Your task to perform on an android device: Add "lenovo thinkpad" to the cart on newegg.com, then select checkout. Image 0: 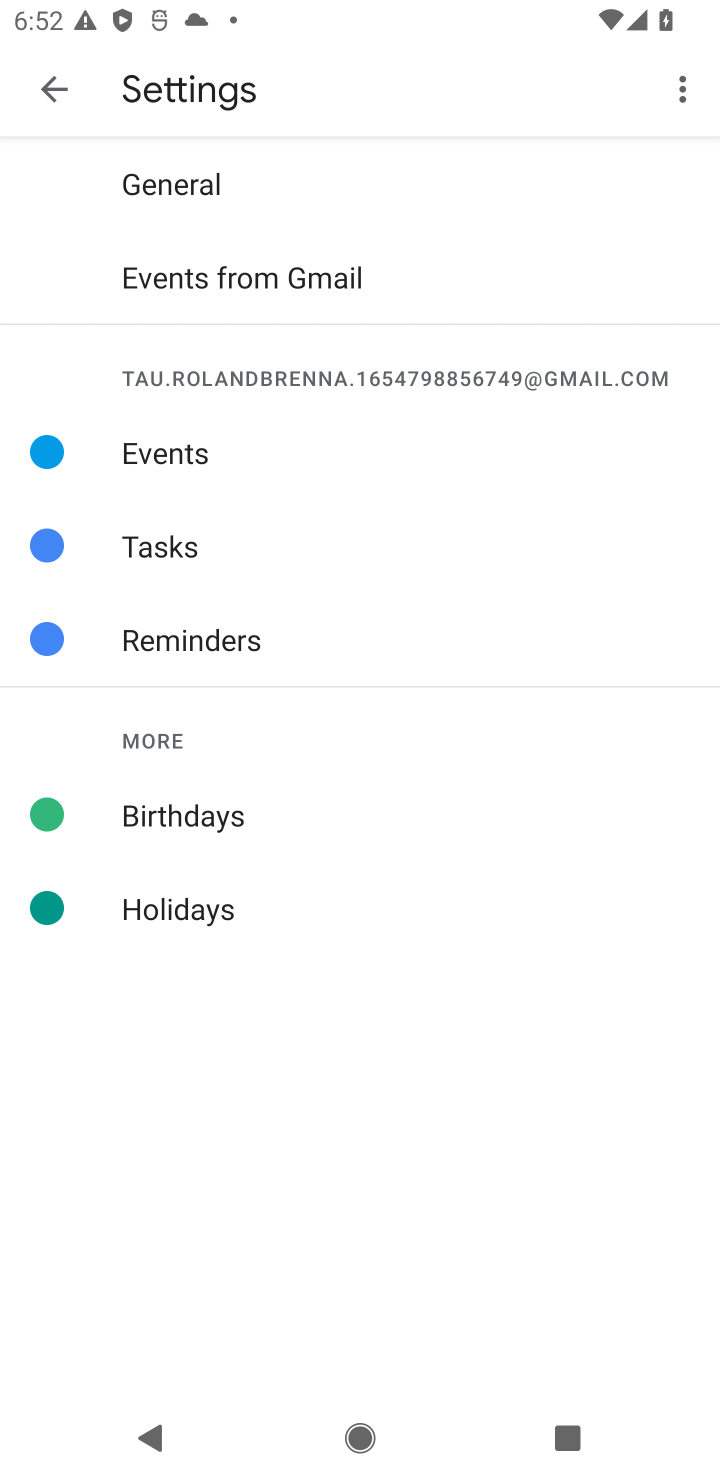
Step 0: press home button
Your task to perform on an android device: Add "lenovo thinkpad" to the cart on newegg.com, then select checkout. Image 1: 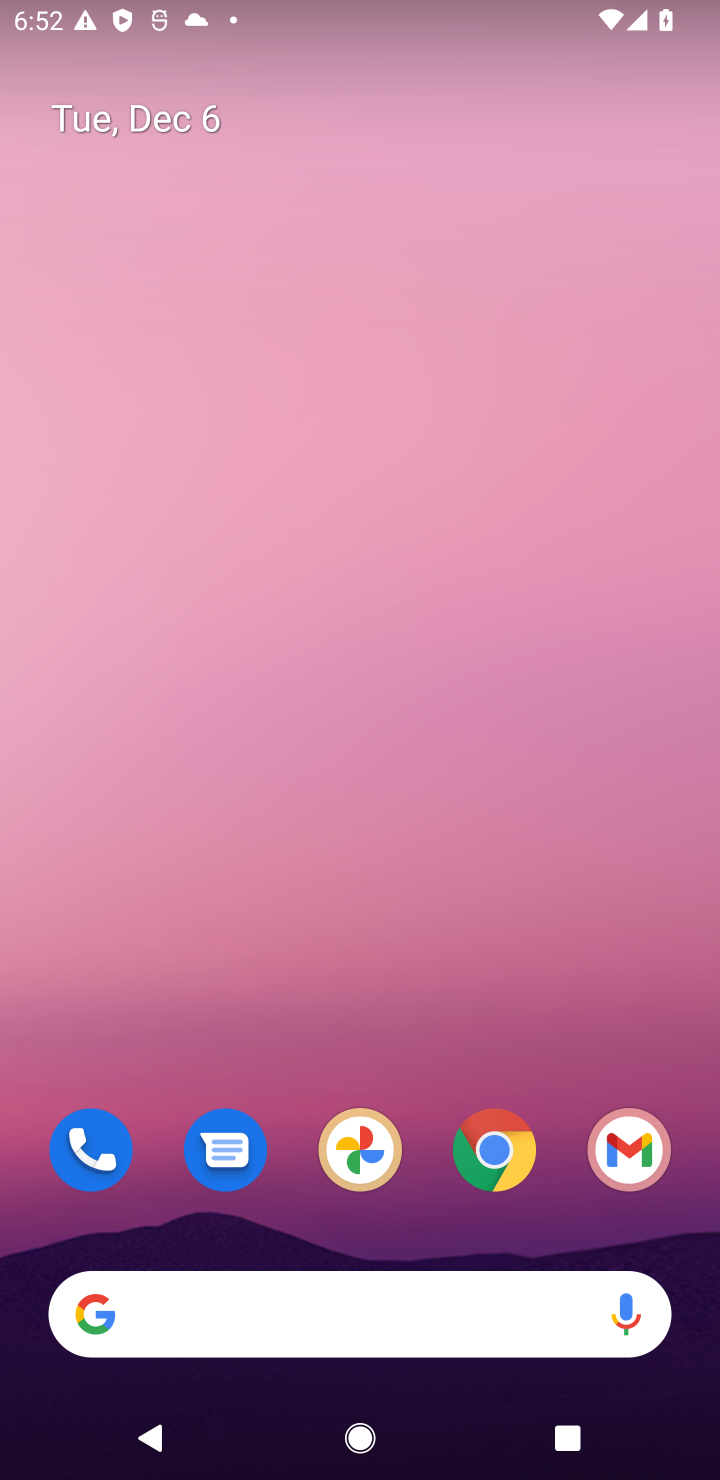
Step 1: click (487, 1163)
Your task to perform on an android device: Add "lenovo thinkpad" to the cart on newegg.com, then select checkout. Image 2: 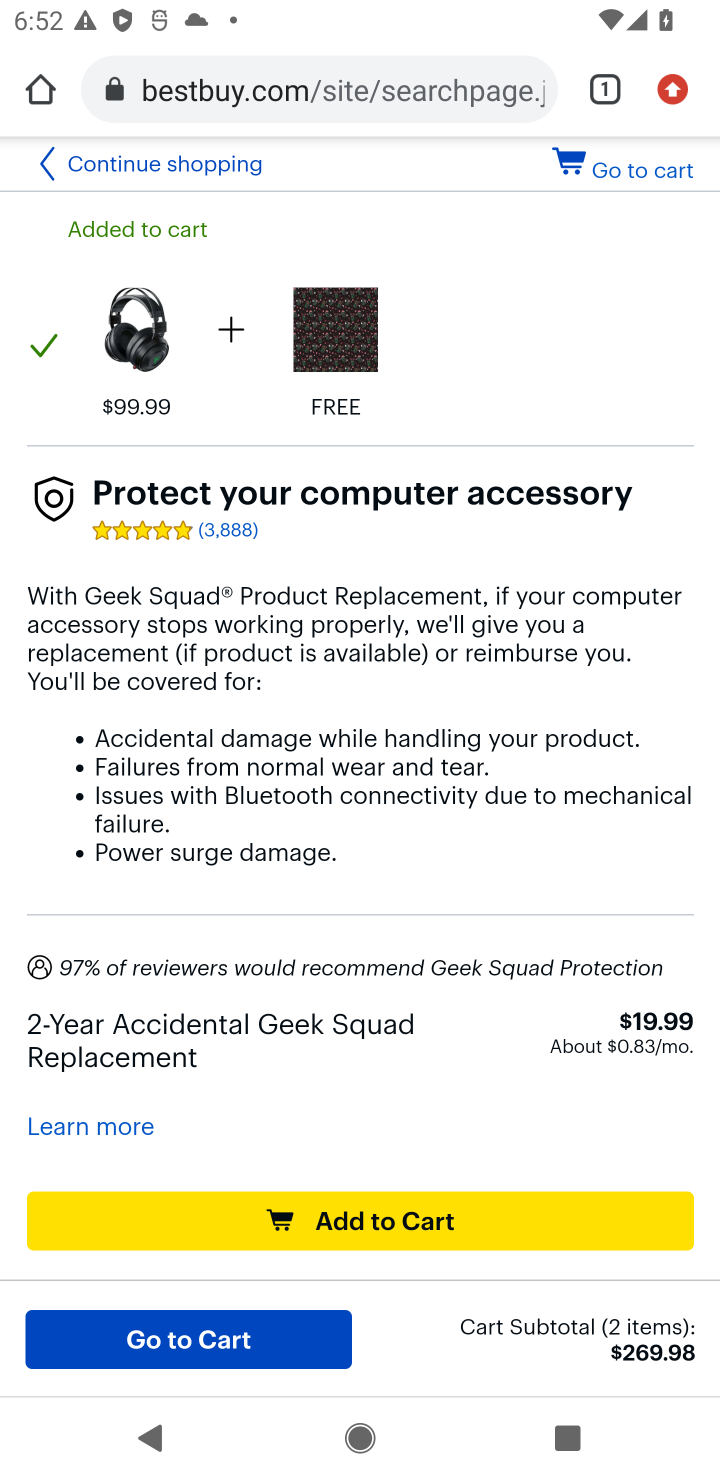
Step 2: click (304, 95)
Your task to perform on an android device: Add "lenovo thinkpad" to the cart on newegg.com, then select checkout. Image 3: 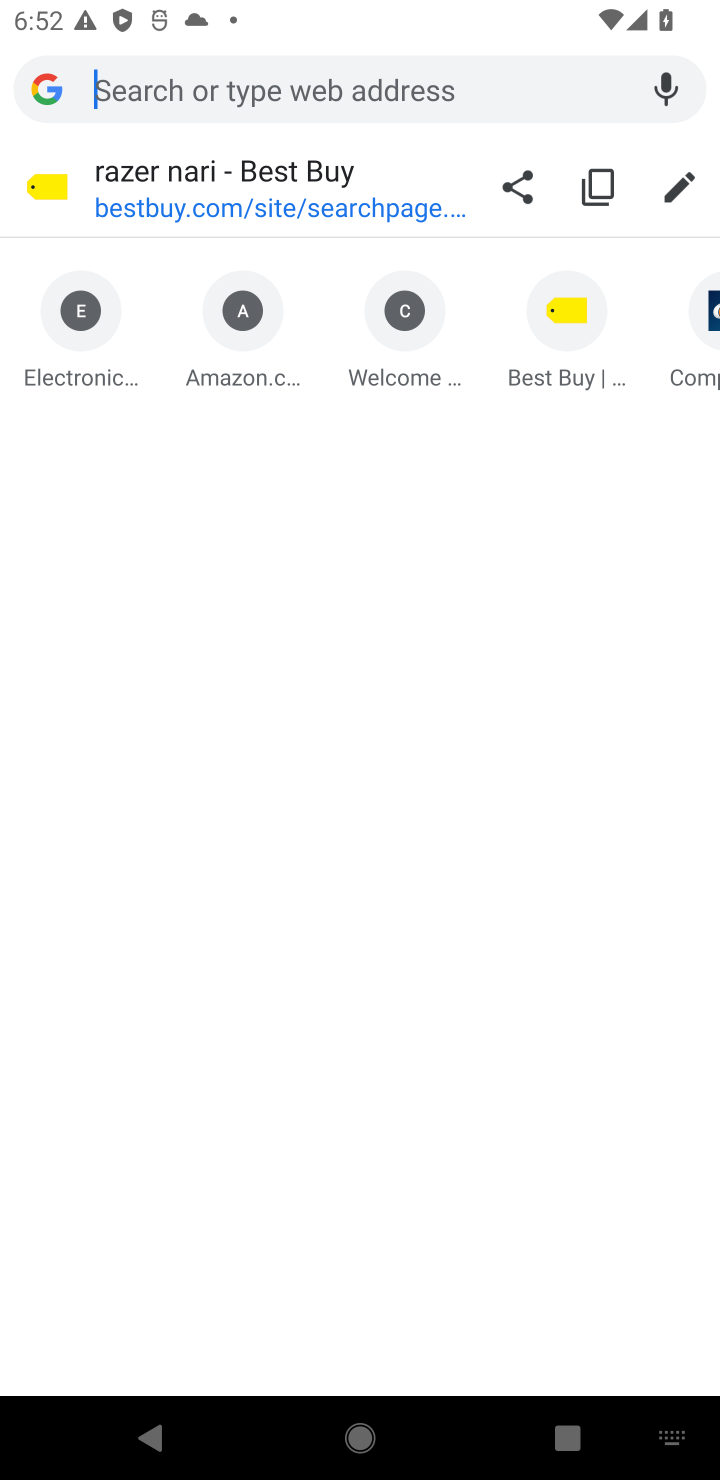
Step 3: type "newegg.com"
Your task to perform on an android device: Add "lenovo thinkpad" to the cart on newegg.com, then select checkout. Image 4: 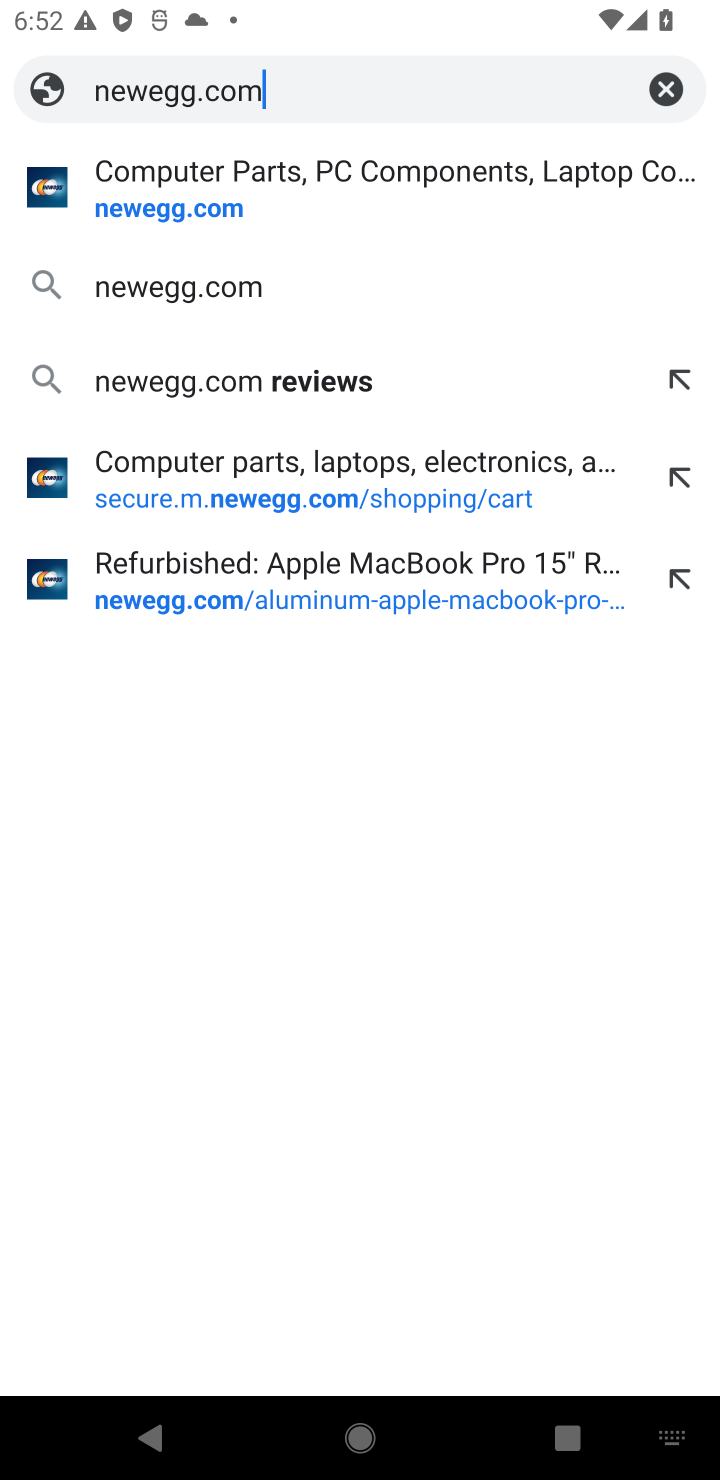
Step 4: click (136, 224)
Your task to perform on an android device: Add "lenovo thinkpad" to the cart on newegg.com, then select checkout. Image 5: 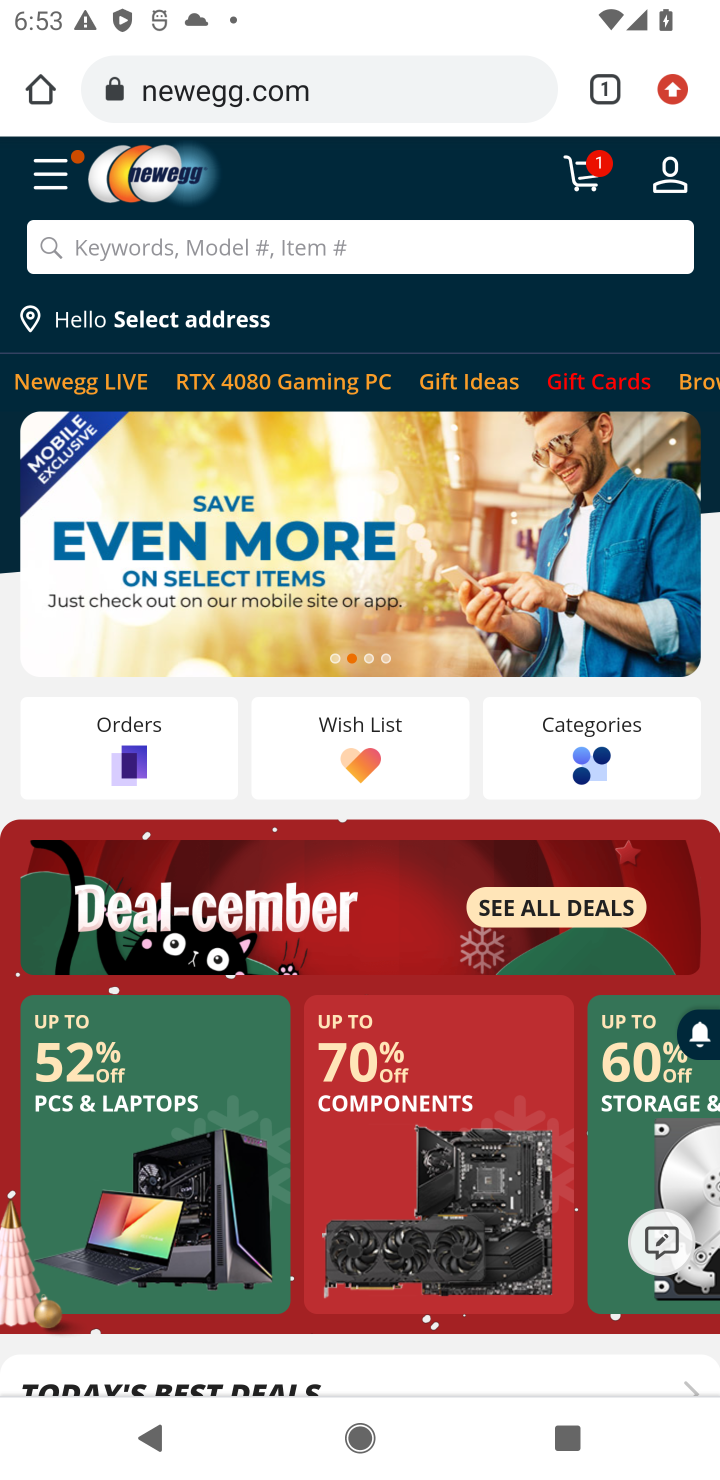
Step 5: click (243, 253)
Your task to perform on an android device: Add "lenovo thinkpad" to the cart on newegg.com, then select checkout. Image 6: 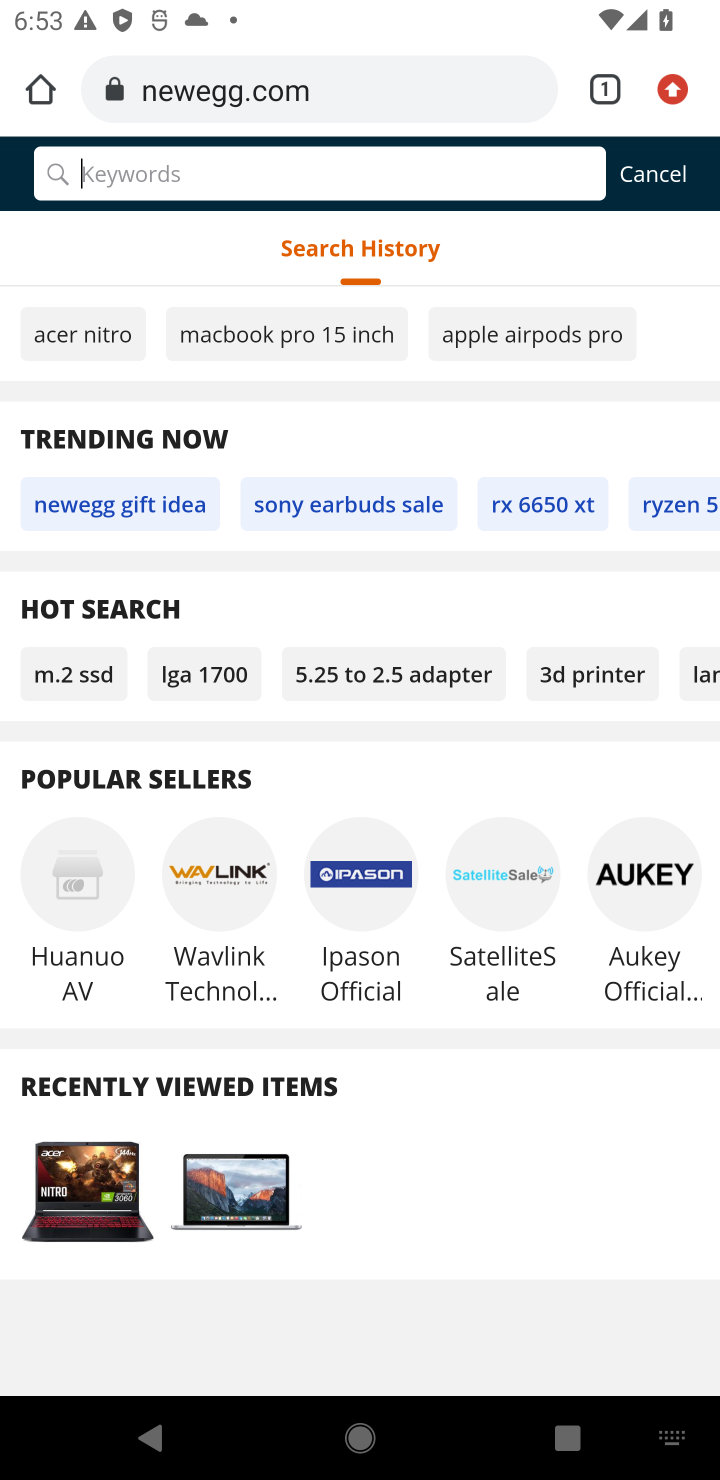
Step 6: type "lenovo thinkpad"
Your task to perform on an android device: Add "lenovo thinkpad" to the cart on newegg.com, then select checkout. Image 7: 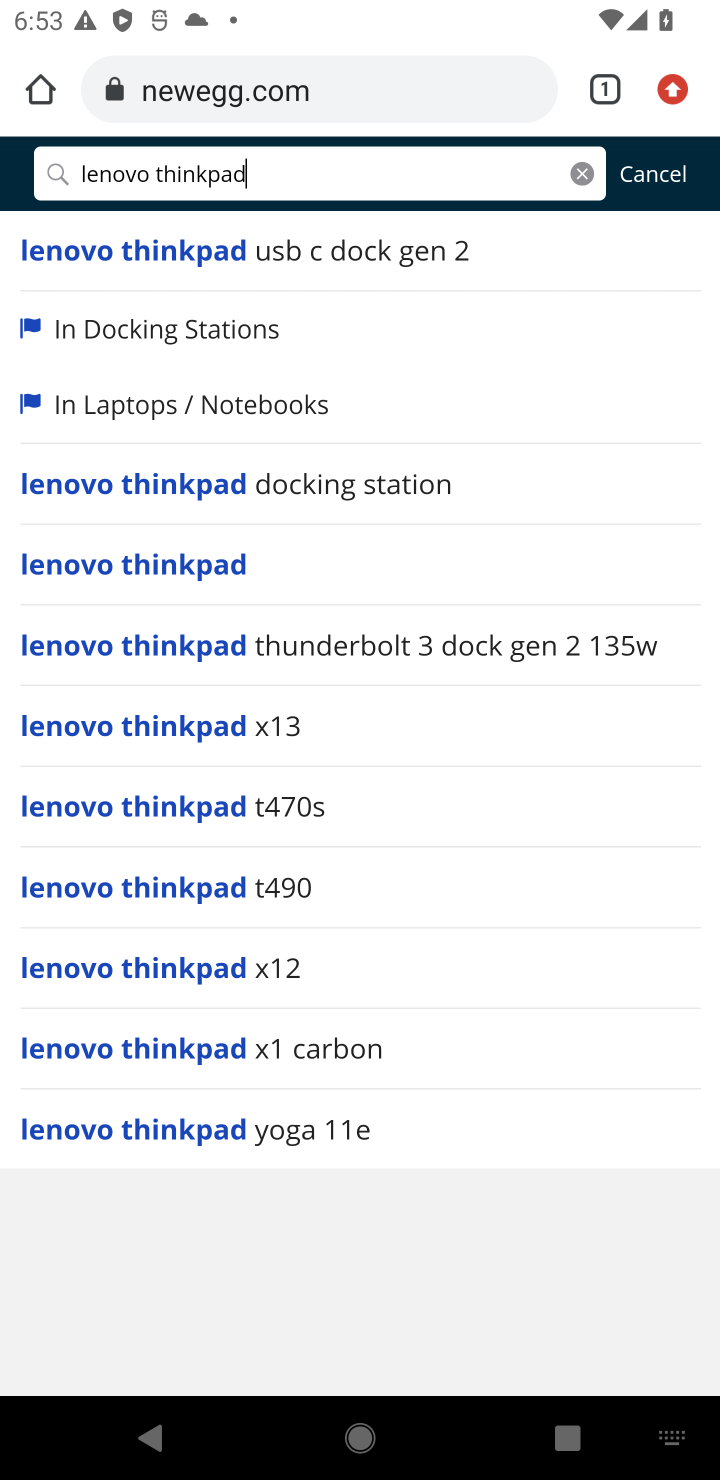
Step 7: click (231, 568)
Your task to perform on an android device: Add "lenovo thinkpad" to the cart on newegg.com, then select checkout. Image 8: 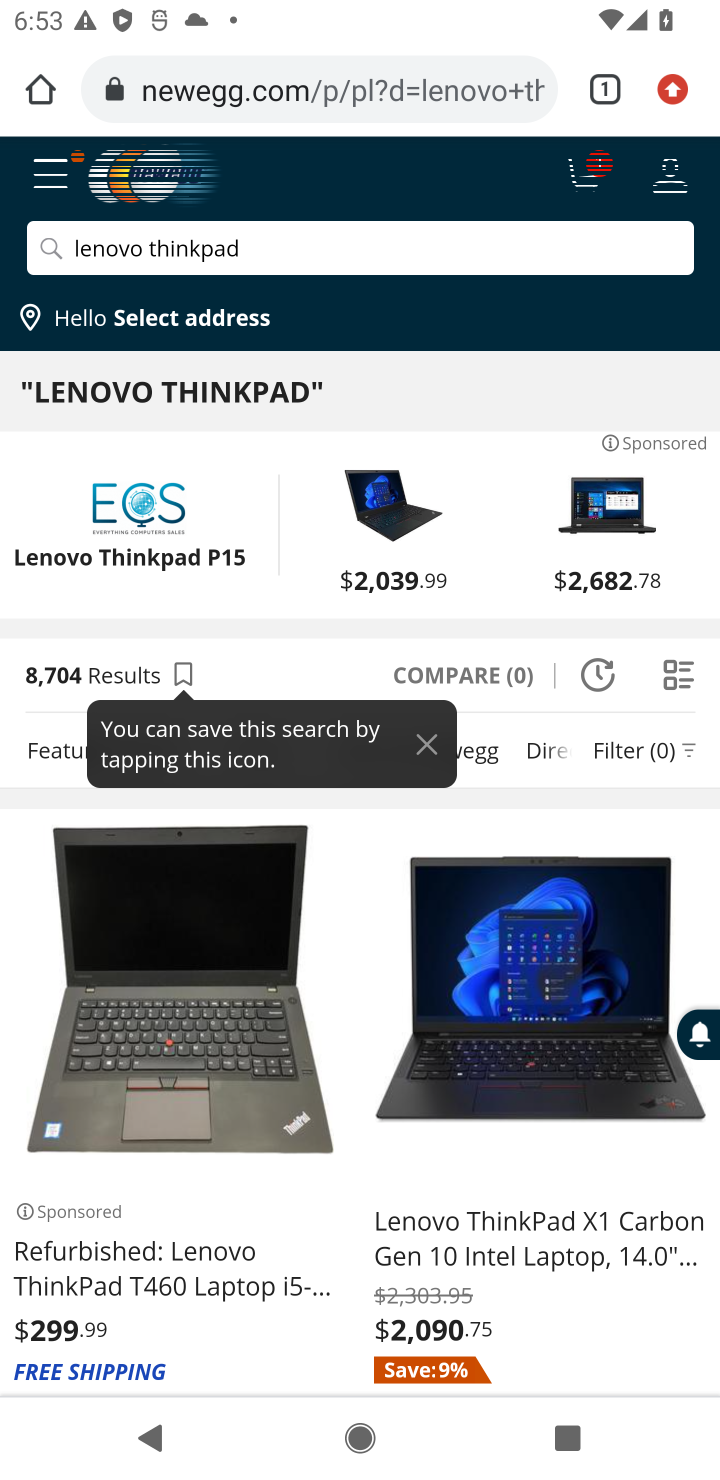
Step 8: click (149, 1268)
Your task to perform on an android device: Add "lenovo thinkpad" to the cart on newegg.com, then select checkout. Image 9: 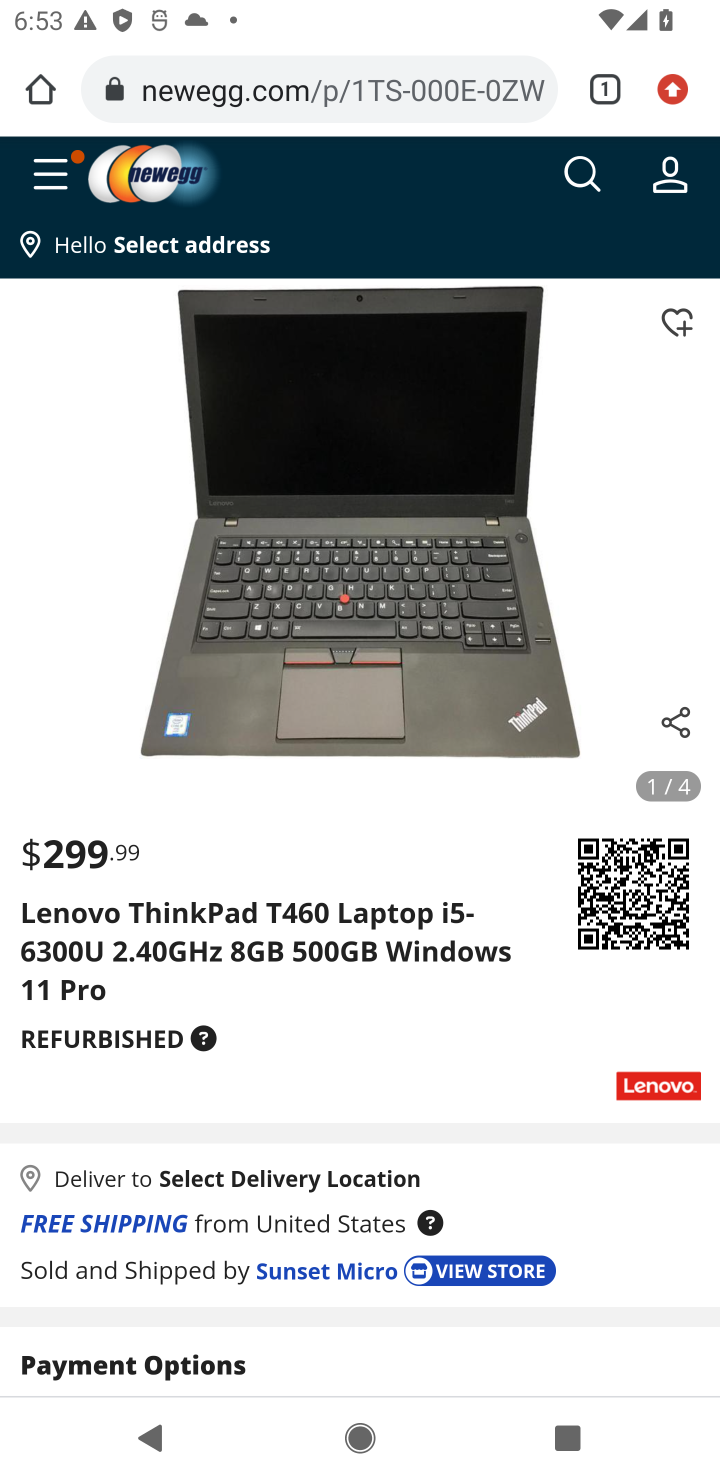
Step 9: click (301, 1356)
Your task to perform on an android device: Add "lenovo thinkpad" to the cart on newegg.com, then select checkout. Image 10: 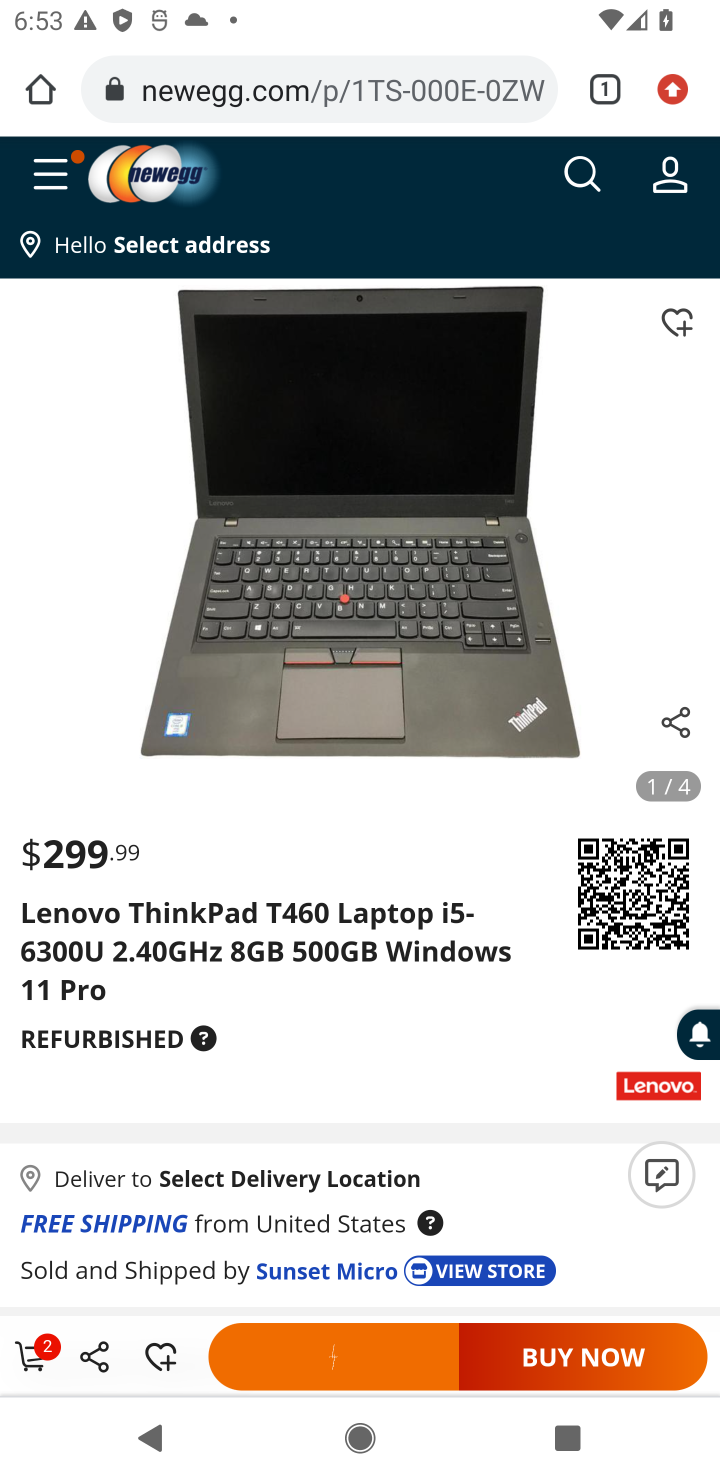
Step 10: click (303, 1359)
Your task to perform on an android device: Add "lenovo thinkpad" to the cart on newegg.com, then select checkout. Image 11: 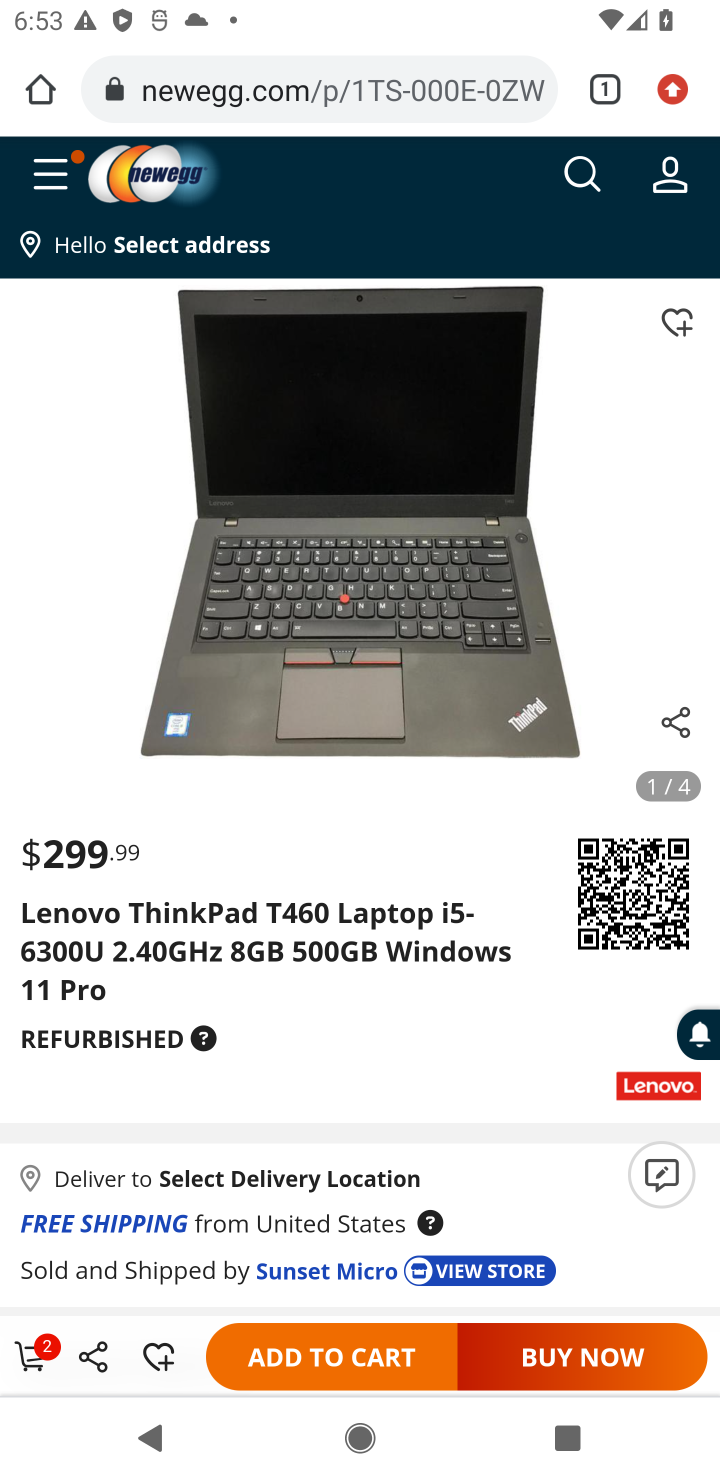
Step 11: click (30, 1371)
Your task to perform on an android device: Add "lenovo thinkpad" to the cart on newegg.com, then select checkout. Image 12: 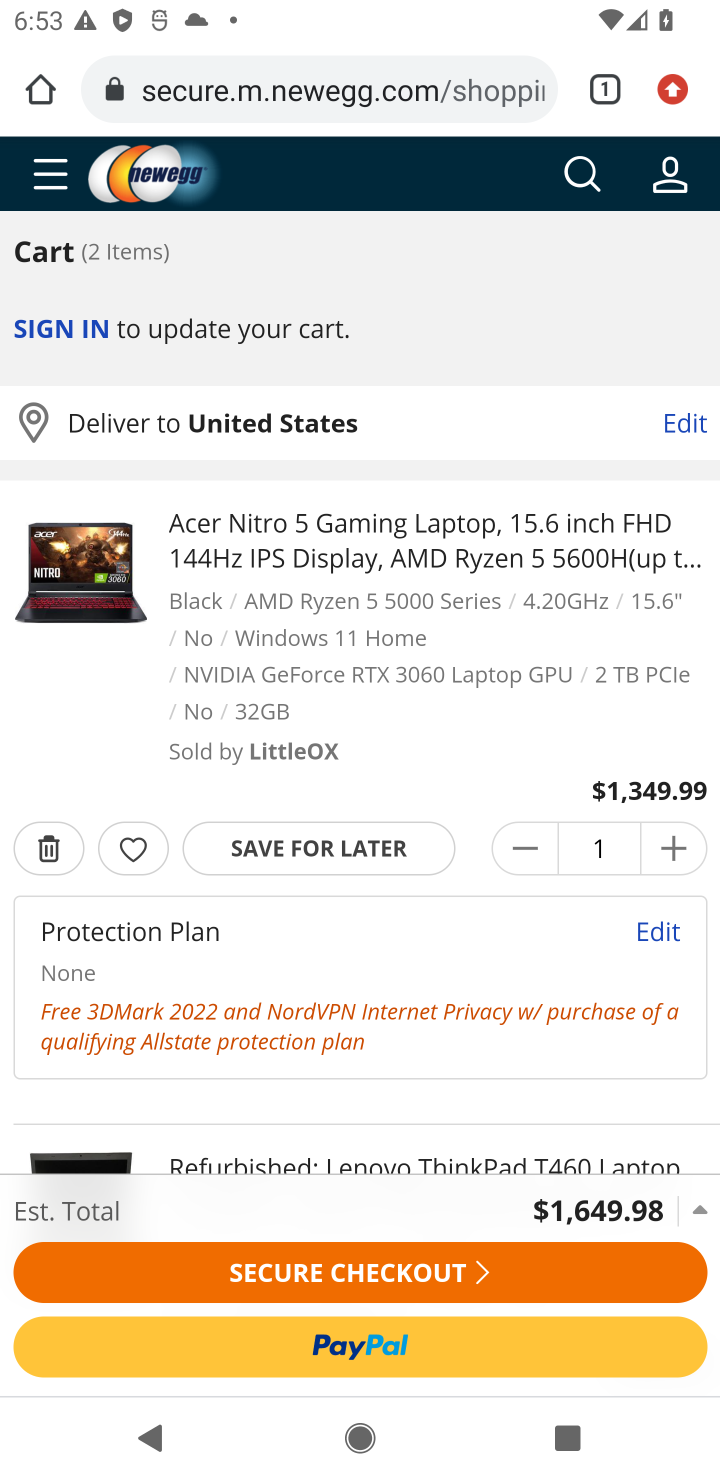
Step 12: click (156, 1327)
Your task to perform on an android device: Add "lenovo thinkpad" to the cart on newegg.com, then select checkout. Image 13: 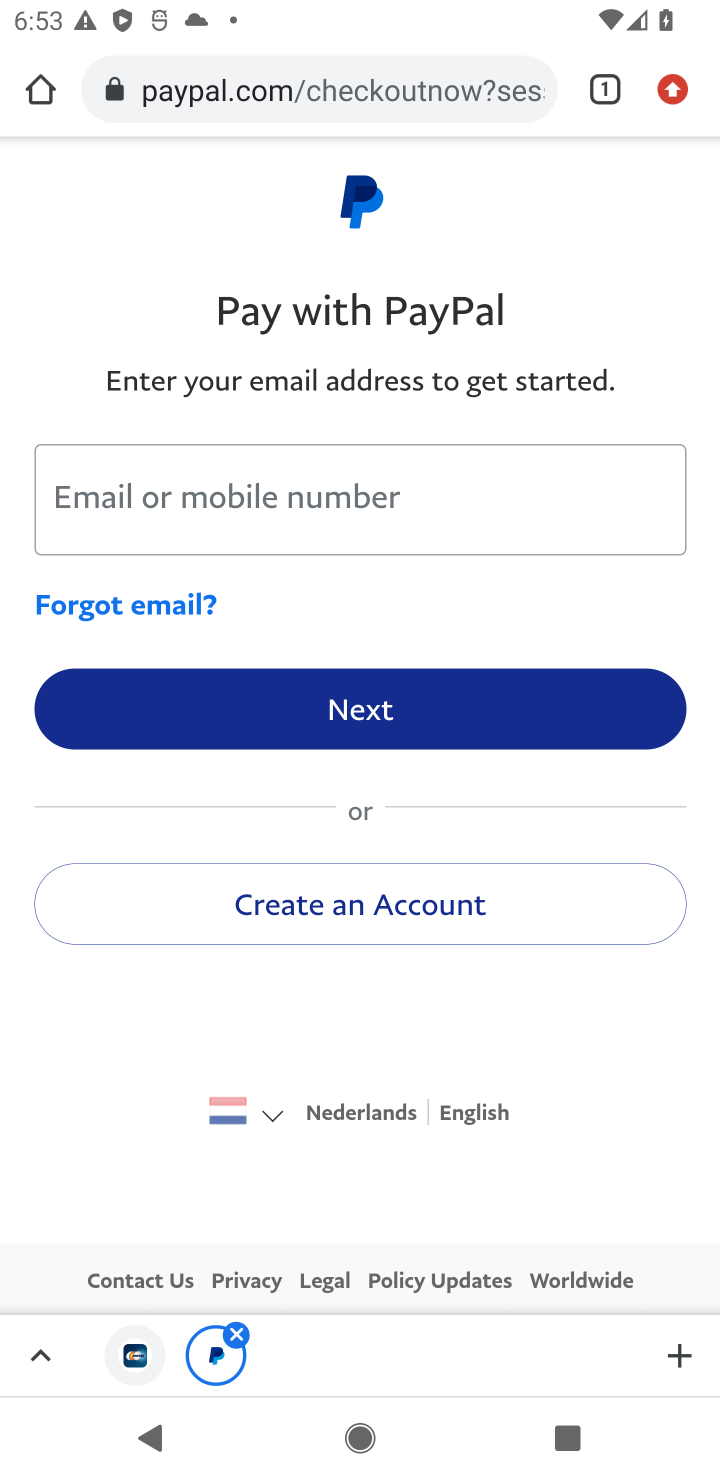
Step 13: task complete